Your task to perform on an android device: snooze an email in the gmail app Image 0: 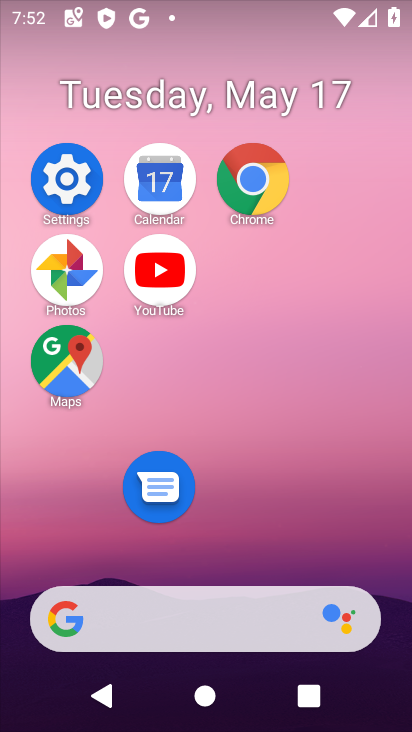
Step 0: drag from (326, 554) to (322, 117)
Your task to perform on an android device: snooze an email in the gmail app Image 1: 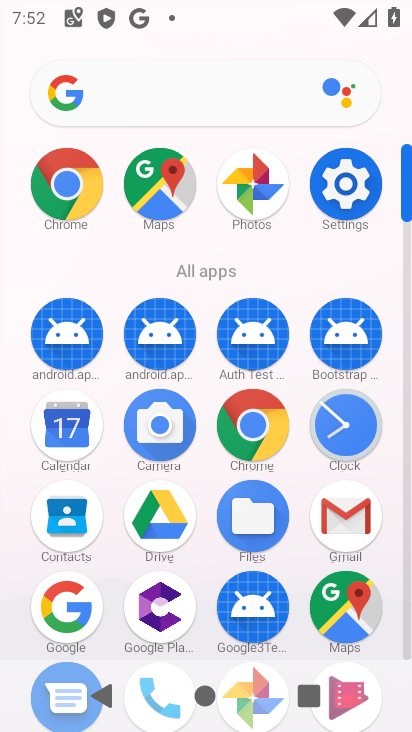
Step 1: drag from (318, 515) to (259, 336)
Your task to perform on an android device: snooze an email in the gmail app Image 2: 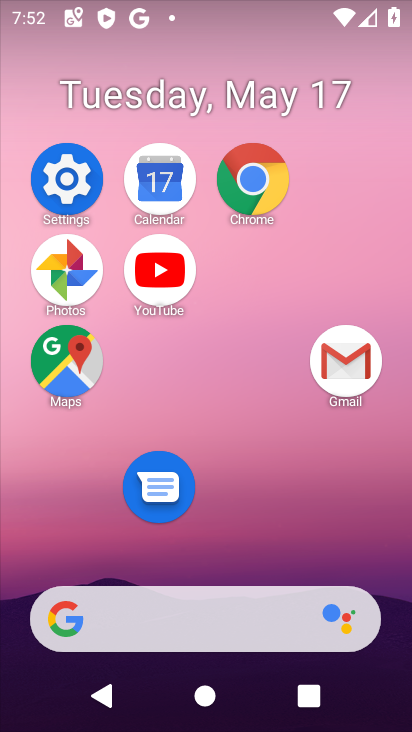
Step 2: drag from (339, 364) to (262, 279)
Your task to perform on an android device: snooze an email in the gmail app Image 3: 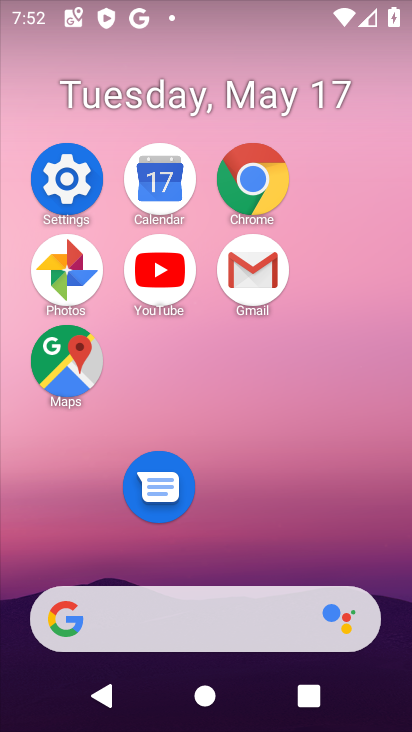
Step 3: click (257, 283)
Your task to perform on an android device: snooze an email in the gmail app Image 4: 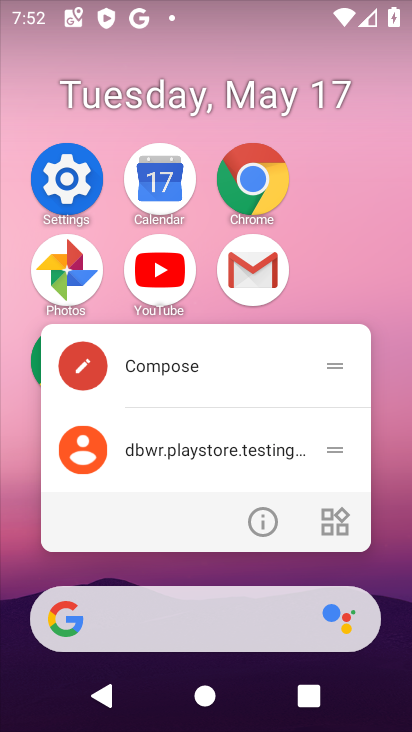
Step 4: click (257, 283)
Your task to perform on an android device: snooze an email in the gmail app Image 5: 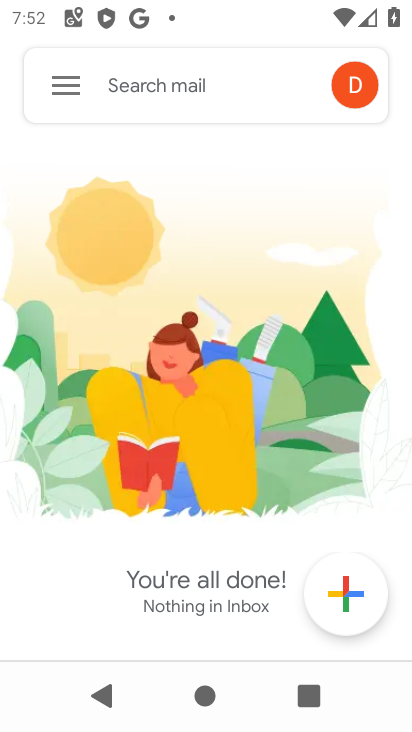
Step 5: click (71, 109)
Your task to perform on an android device: snooze an email in the gmail app Image 6: 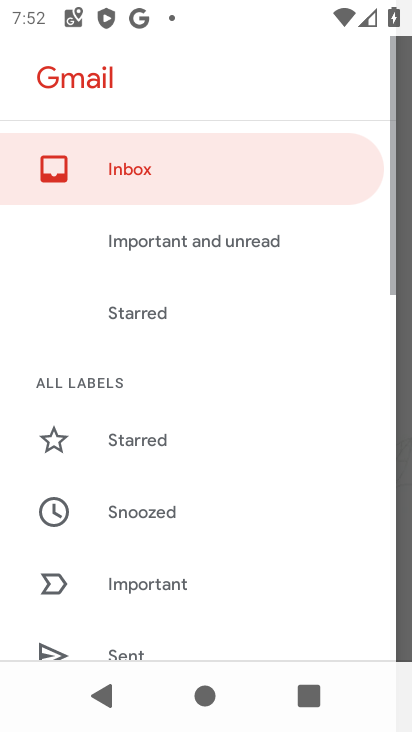
Step 6: drag from (149, 574) to (165, 173)
Your task to perform on an android device: snooze an email in the gmail app Image 7: 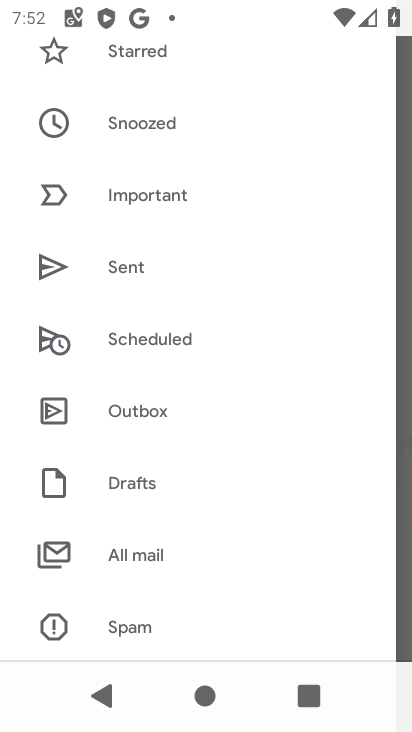
Step 7: click (161, 555)
Your task to perform on an android device: snooze an email in the gmail app Image 8: 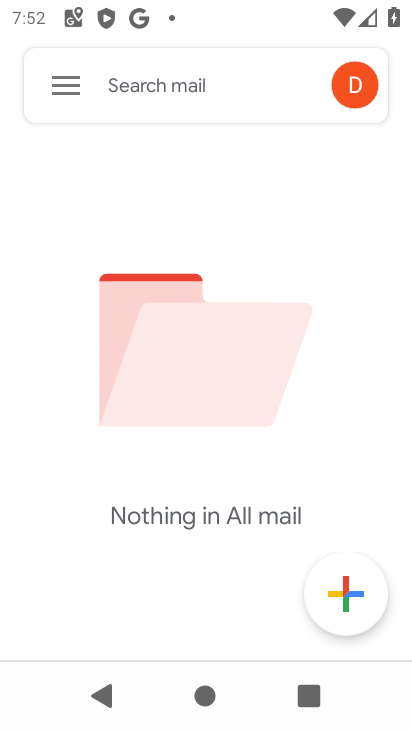
Step 8: task complete